Your task to perform on an android device: refresh tabs in the chrome app Image 0: 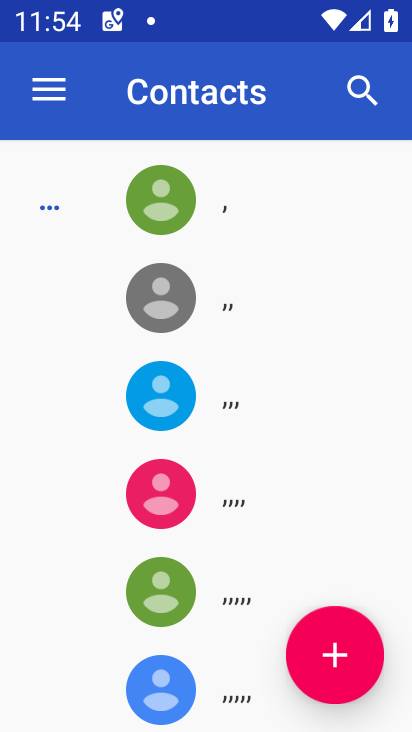
Step 0: press home button
Your task to perform on an android device: refresh tabs in the chrome app Image 1: 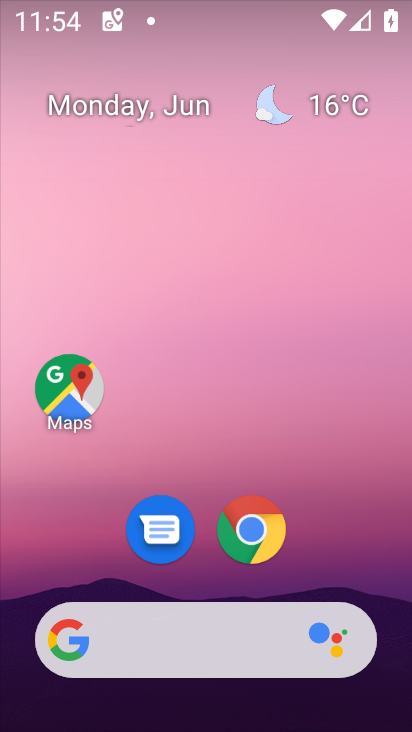
Step 1: click (261, 554)
Your task to perform on an android device: refresh tabs in the chrome app Image 2: 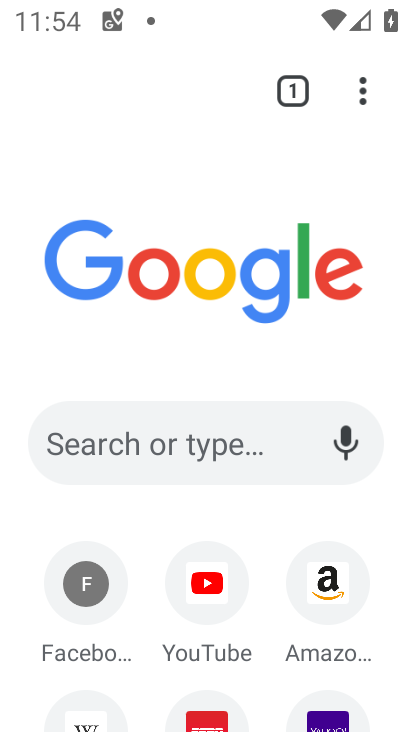
Step 2: click (385, 99)
Your task to perform on an android device: refresh tabs in the chrome app Image 3: 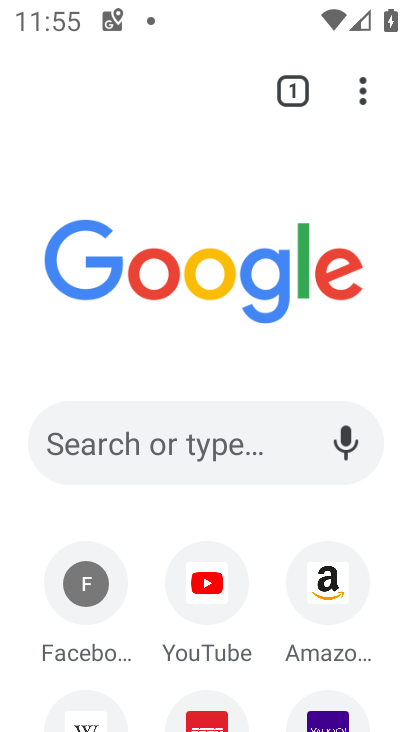
Step 3: task complete